Your task to perform on an android device: Open maps Image 0: 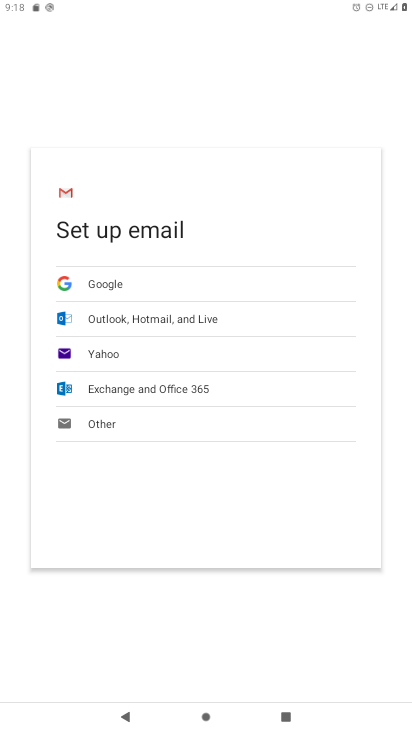
Step 0: press home button
Your task to perform on an android device: Open maps Image 1: 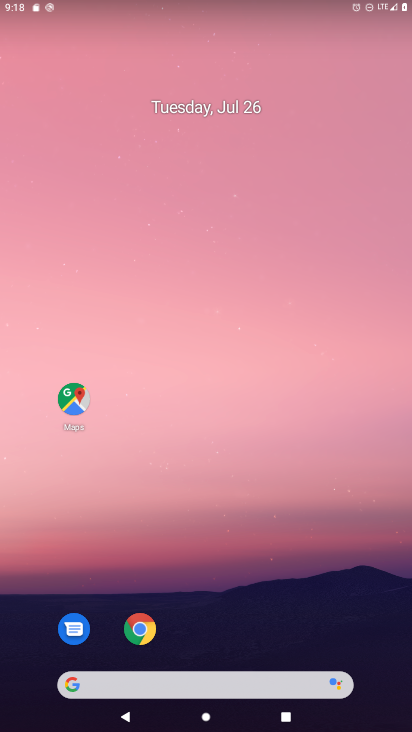
Step 1: drag from (209, 635) to (224, 0)
Your task to perform on an android device: Open maps Image 2: 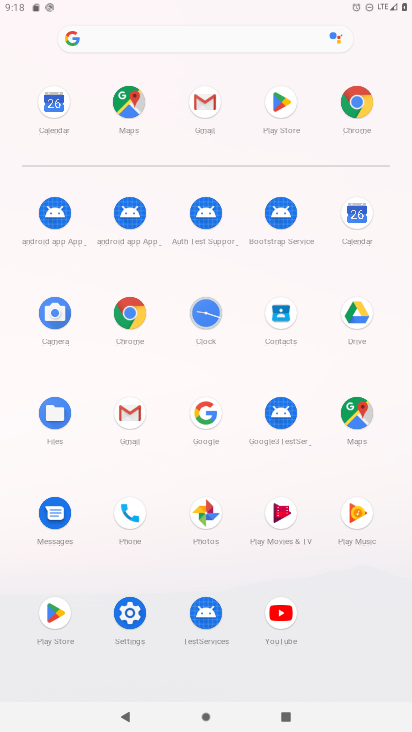
Step 2: click (360, 426)
Your task to perform on an android device: Open maps Image 3: 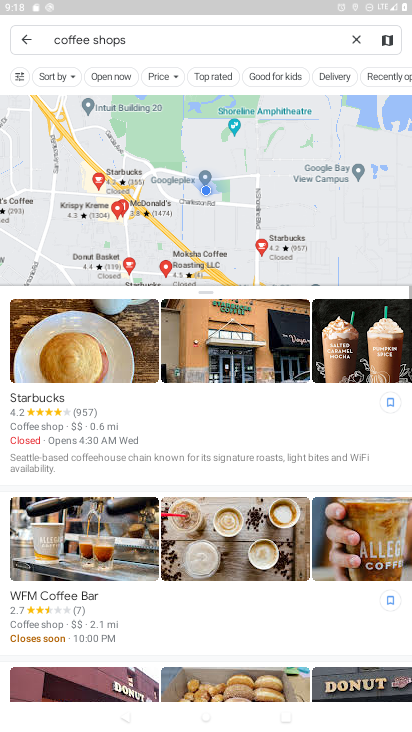
Step 3: click (28, 40)
Your task to perform on an android device: Open maps Image 4: 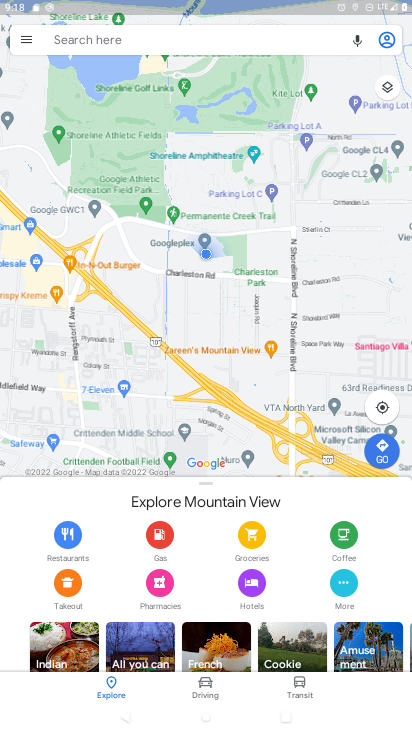
Step 4: task complete